Your task to perform on an android device: Set the phone to "Do not disturb". Image 0: 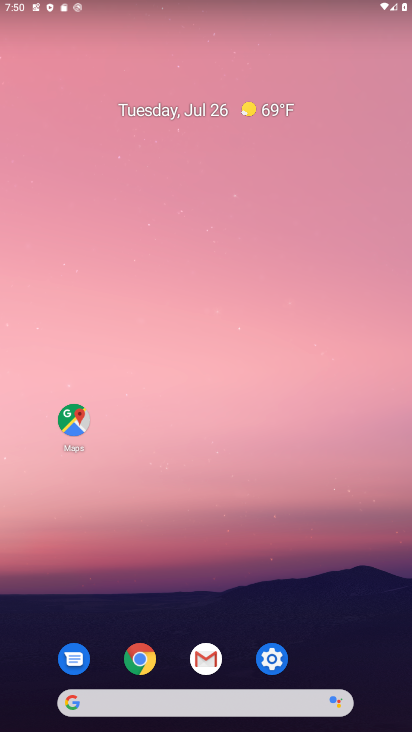
Step 0: click (284, 667)
Your task to perform on an android device: Set the phone to "Do not disturb". Image 1: 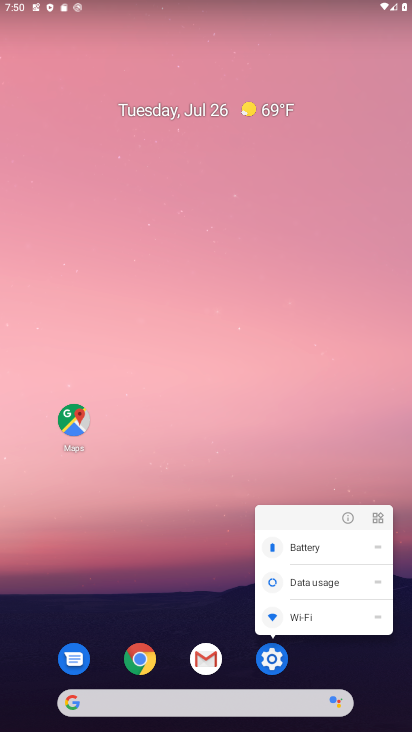
Step 1: click (273, 654)
Your task to perform on an android device: Set the phone to "Do not disturb". Image 2: 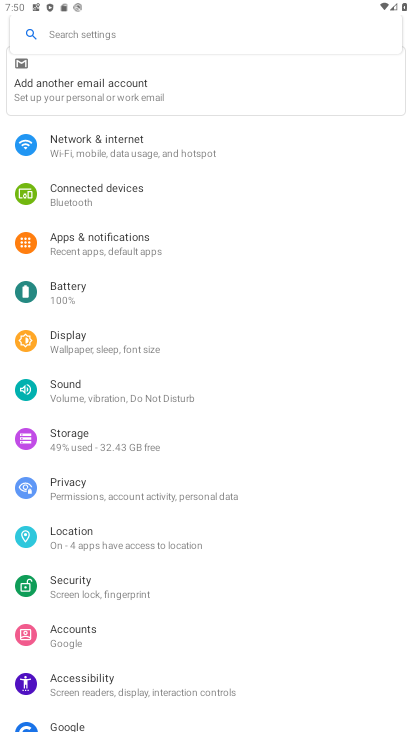
Step 2: click (97, 35)
Your task to perform on an android device: Set the phone to "Do not disturb". Image 3: 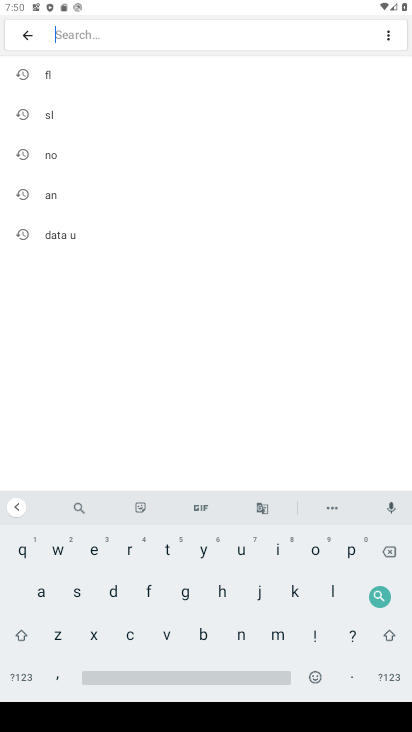
Step 3: click (113, 599)
Your task to perform on an android device: Set the phone to "Do not disturb". Image 4: 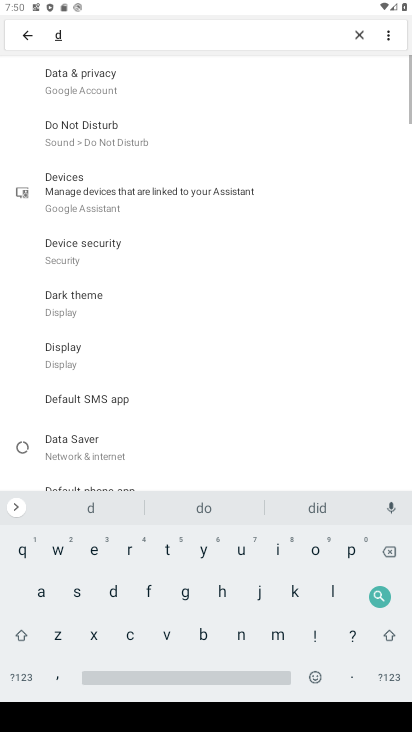
Step 4: click (241, 639)
Your task to perform on an android device: Set the phone to "Do not disturb". Image 5: 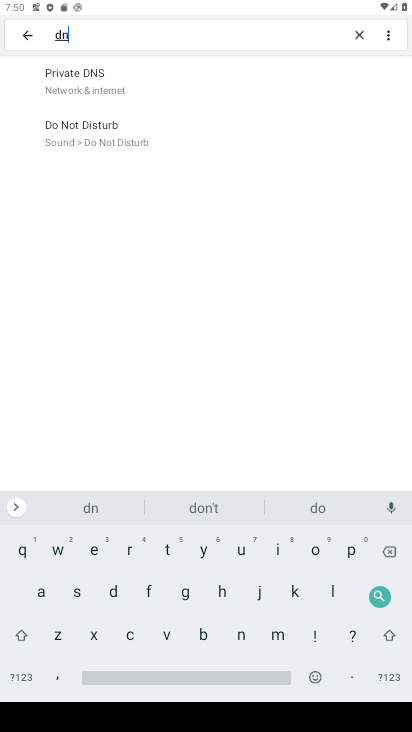
Step 5: click (110, 141)
Your task to perform on an android device: Set the phone to "Do not disturb". Image 6: 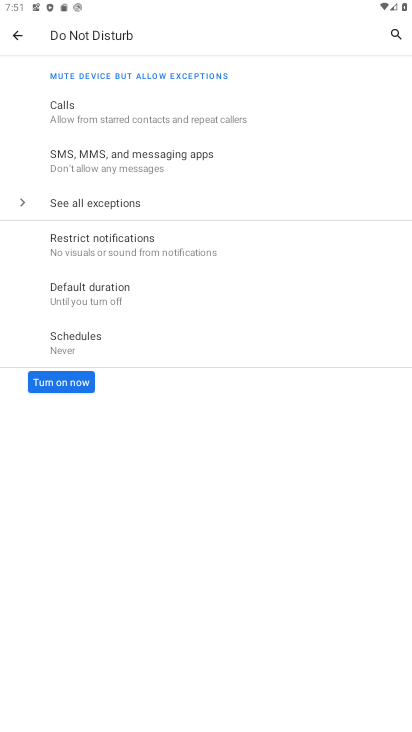
Step 6: click (63, 381)
Your task to perform on an android device: Set the phone to "Do not disturb". Image 7: 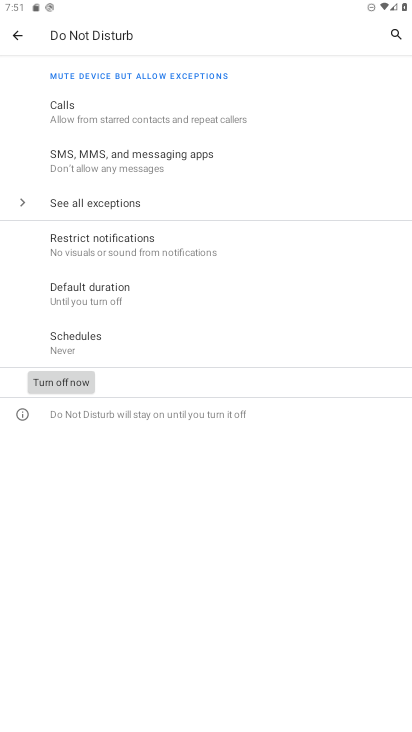
Step 7: task complete